Your task to perform on an android device: toggle priority inbox in the gmail app Image 0: 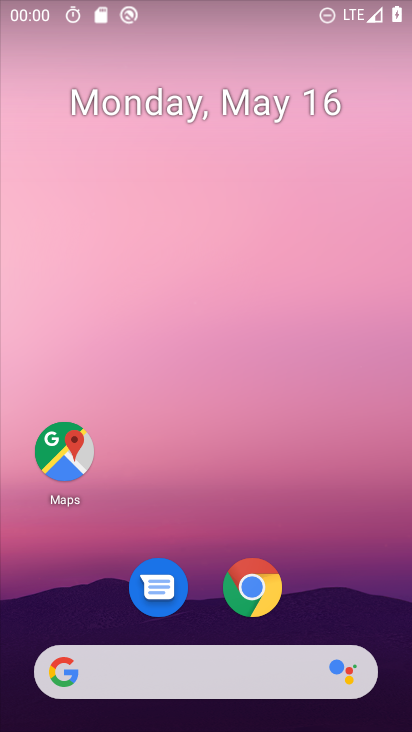
Step 0: drag from (206, 622) to (221, 242)
Your task to perform on an android device: toggle priority inbox in the gmail app Image 1: 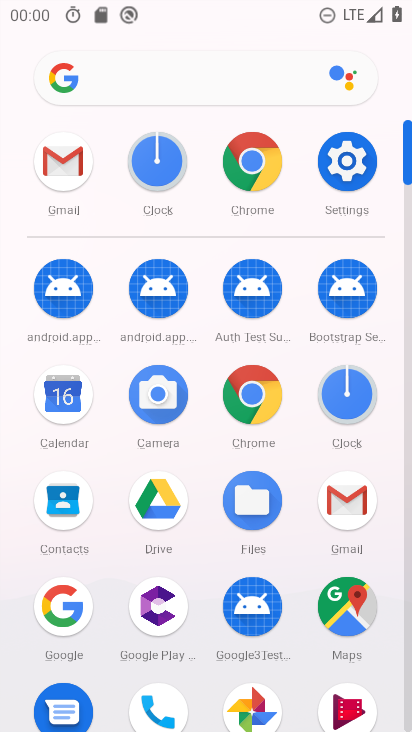
Step 1: click (75, 173)
Your task to perform on an android device: toggle priority inbox in the gmail app Image 2: 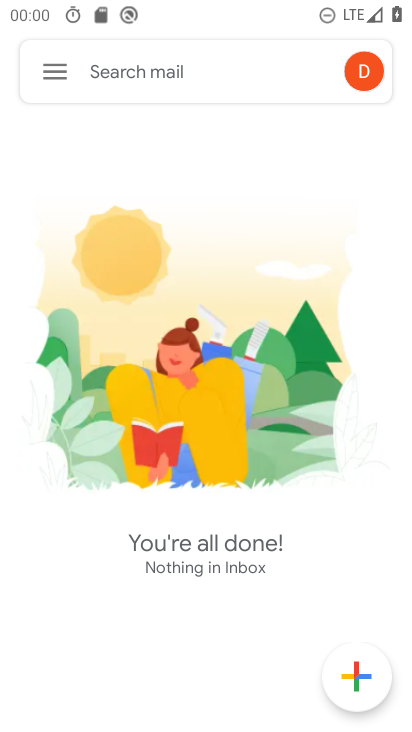
Step 2: click (66, 81)
Your task to perform on an android device: toggle priority inbox in the gmail app Image 3: 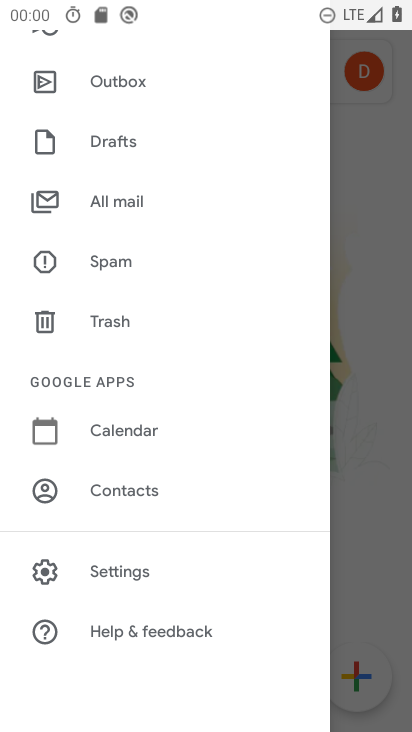
Step 3: click (105, 576)
Your task to perform on an android device: toggle priority inbox in the gmail app Image 4: 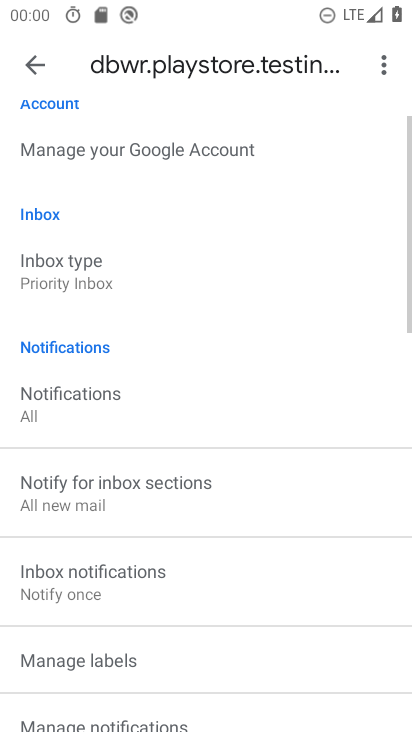
Step 4: click (110, 262)
Your task to perform on an android device: toggle priority inbox in the gmail app Image 5: 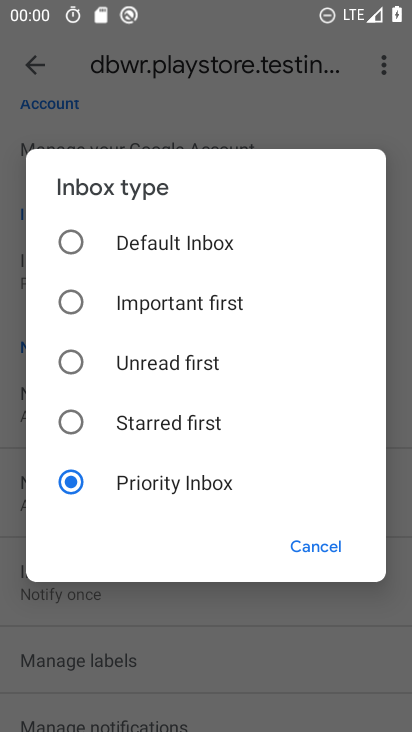
Step 5: click (161, 251)
Your task to perform on an android device: toggle priority inbox in the gmail app Image 6: 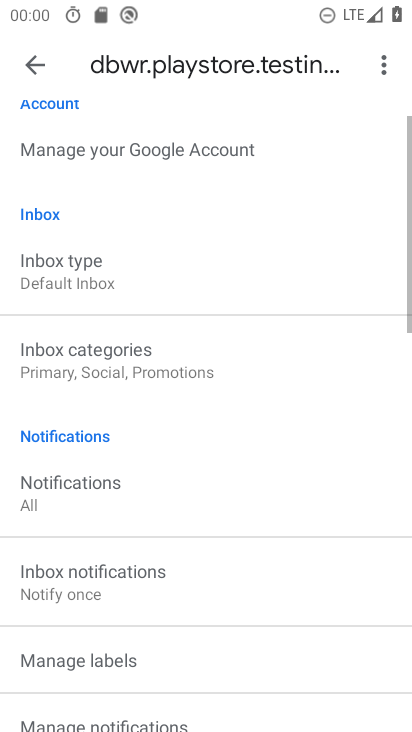
Step 6: task complete